Your task to perform on an android device: Show me the alarms in the clock app Image 0: 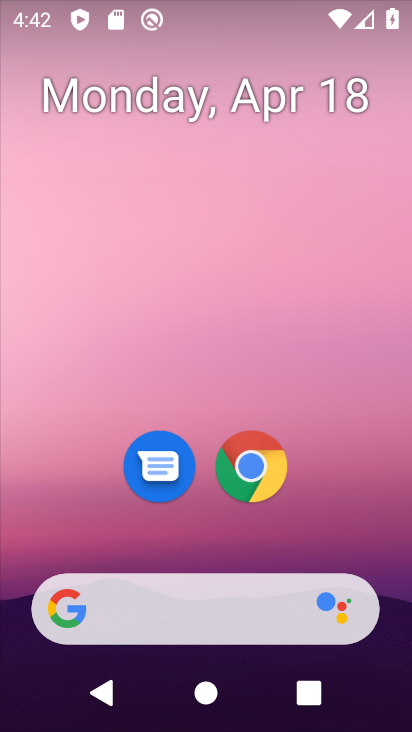
Step 0: drag from (336, 491) to (266, 34)
Your task to perform on an android device: Show me the alarms in the clock app Image 1: 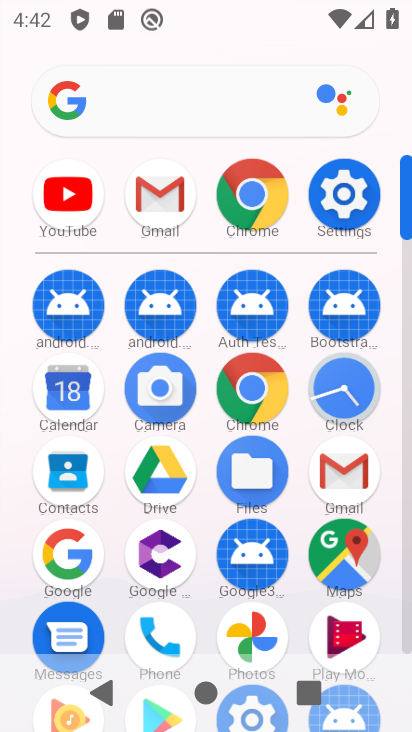
Step 1: drag from (11, 463) to (21, 194)
Your task to perform on an android device: Show me the alarms in the clock app Image 2: 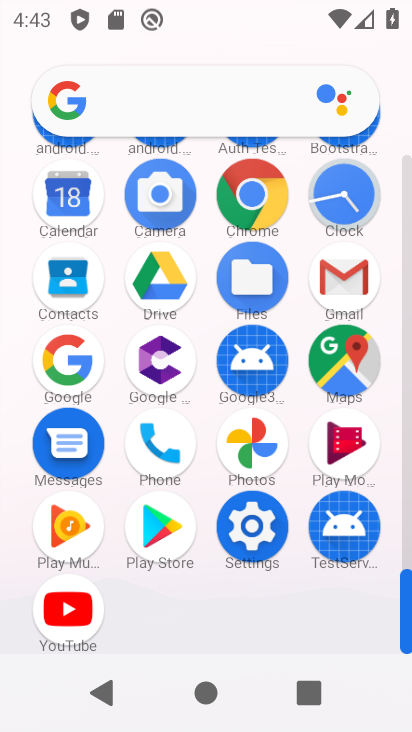
Step 2: click (342, 188)
Your task to perform on an android device: Show me the alarms in the clock app Image 3: 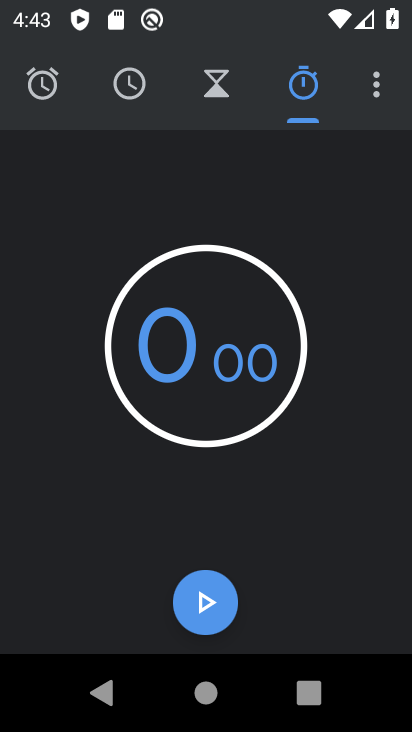
Step 3: click (56, 79)
Your task to perform on an android device: Show me the alarms in the clock app Image 4: 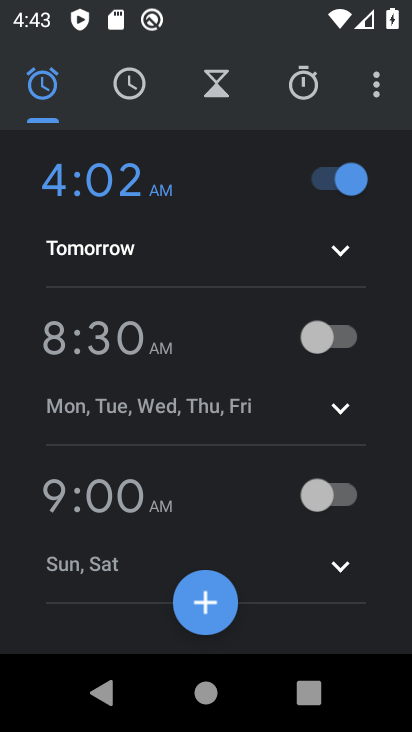
Step 4: task complete